Your task to perform on an android device: Open Yahoo.com Image 0: 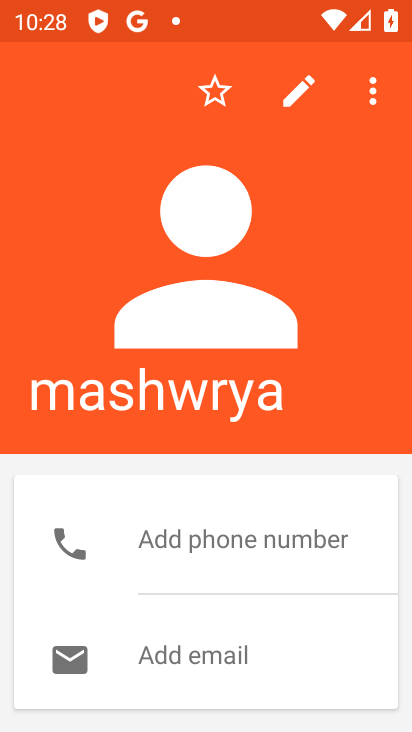
Step 0: press home button
Your task to perform on an android device: Open Yahoo.com Image 1: 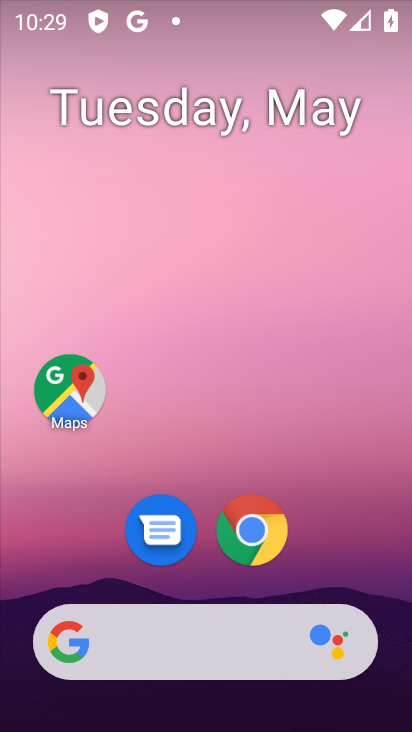
Step 1: click (253, 525)
Your task to perform on an android device: Open Yahoo.com Image 2: 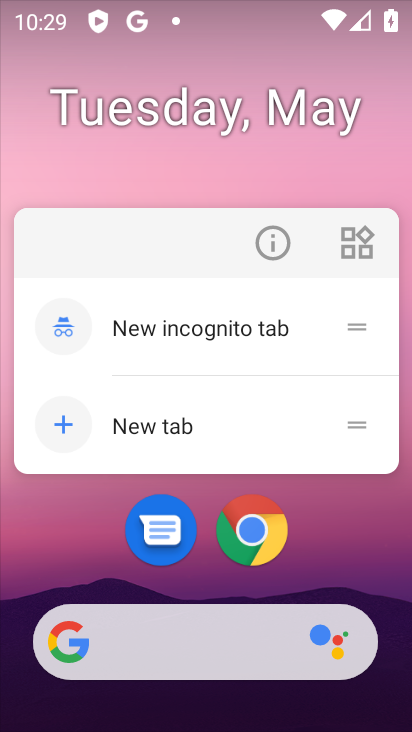
Step 2: click (254, 524)
Your task to perform on an android device: Open Yahoo.com Image 3: 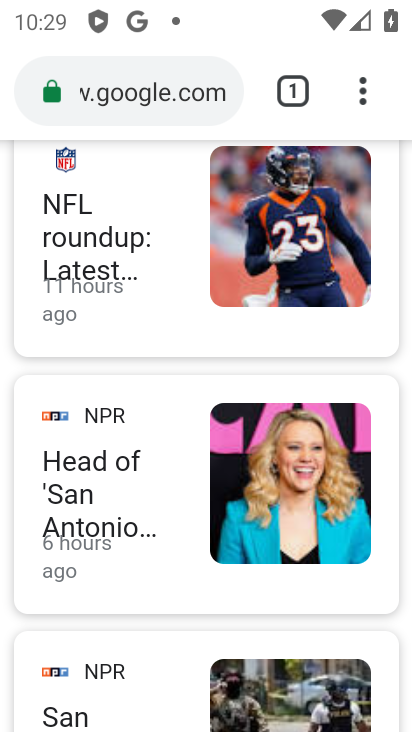
Step 3: click (162, 108)
Your task to perform on an android device: Open Yahoo.com Image 4: 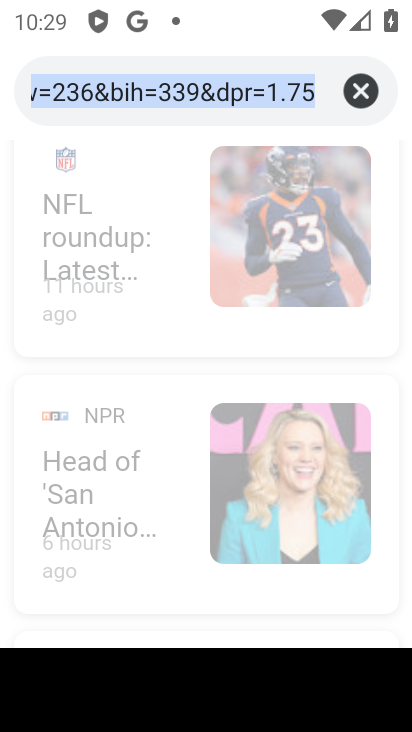
Step 4: type "yahoo.com"
Your task to perform on an android device: Open Yahoo.com Image 5: 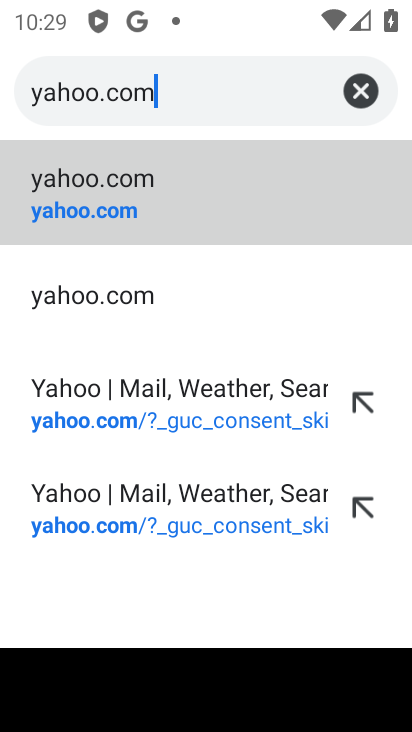
Step 5: click (98, 210)
Your task to perform on an android device: Open Yahoo.com Image 6: 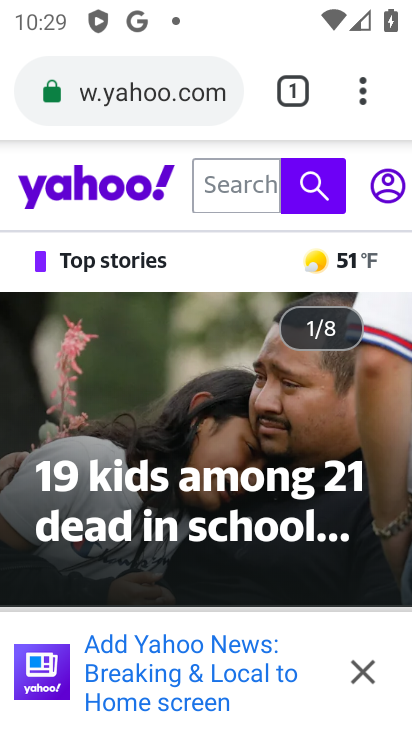
Step 6: task complete